Your task to perform on an android device: clear all cookies in the chrome app Image 0: 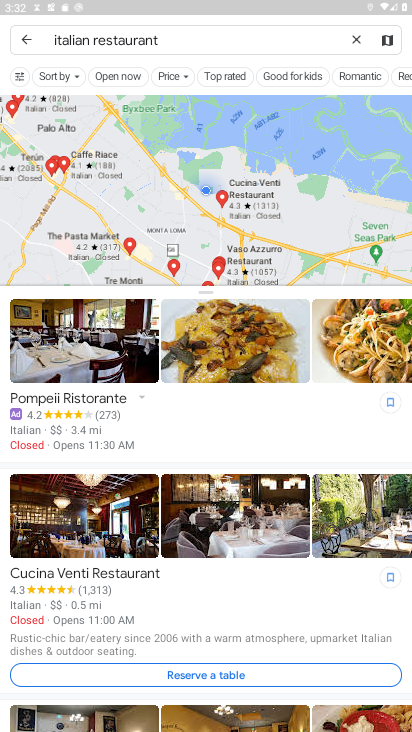
Step 0: press home button
Your task to perform on an android device: clear all cookies in the chrome app Image 1: 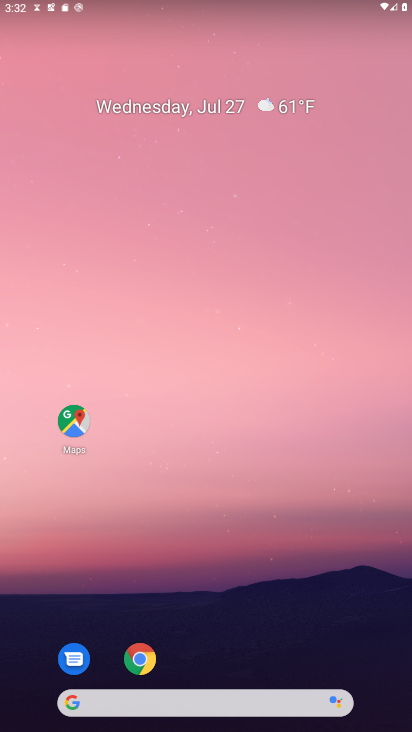
Step 1: click (152, 649)
Your task to perform on an android device: clear all cookies in the chrome app Image 2: 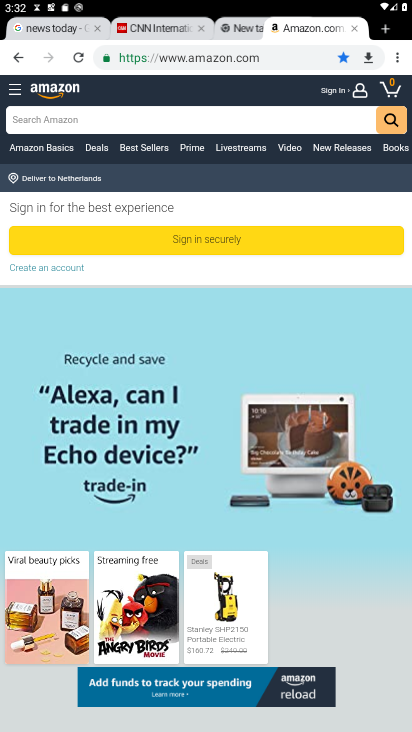
Step 2: drag from (399, 66) to (327, 173)
Your task to perform on an android device: clear all cookies in the chrome app Image 3: 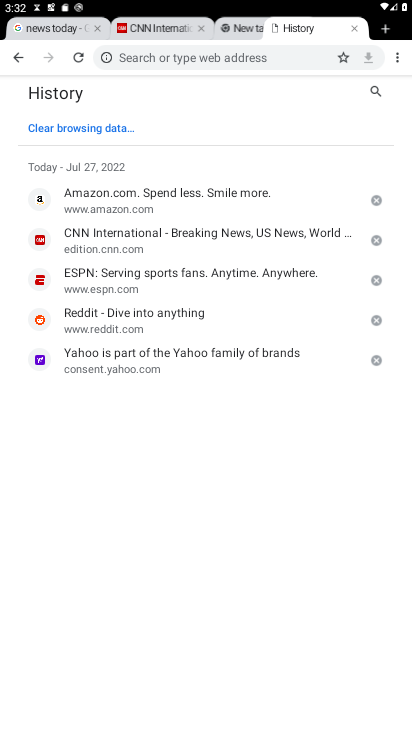
Step 3: click (74, 133)
Your task to perform on an android device: clear all cookies in the chrome app Image 4: 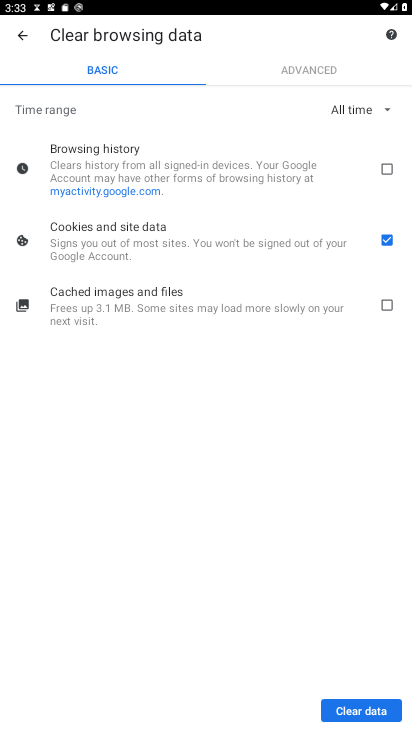
Step 4: click (346, 703)
Your task to perform on an android device: clear all cookies in the chrome app Image 5: 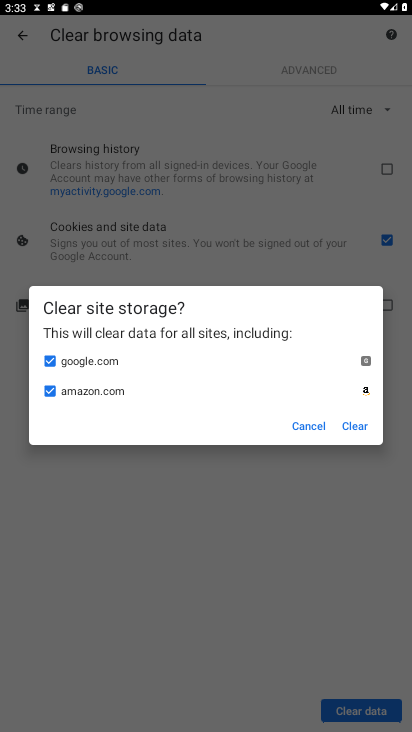
Step 5: click (362, 426)
Your task to perform on an android device: clear all cookies in the chrome app Image 6: 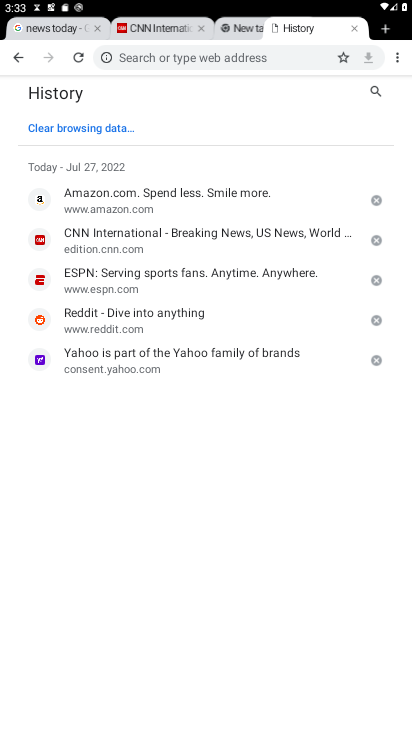
Step 6: task complete